Your task to perform on an android device: manage bookmarks in the chrome app Image 0: 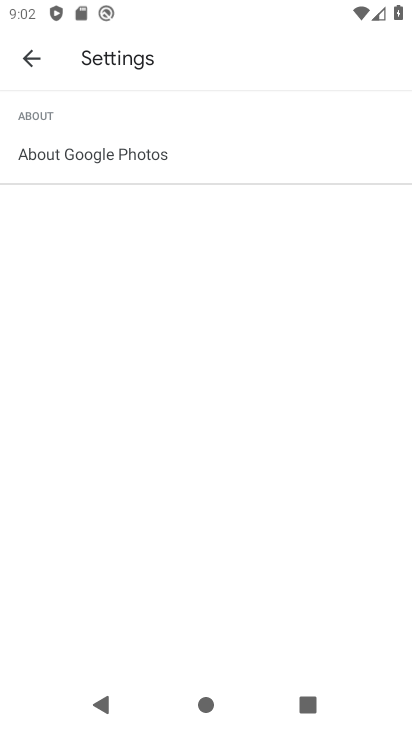
Step 0: press home button
Your task to perform on an android device: manage bookmarks in the chrome app Image 1: 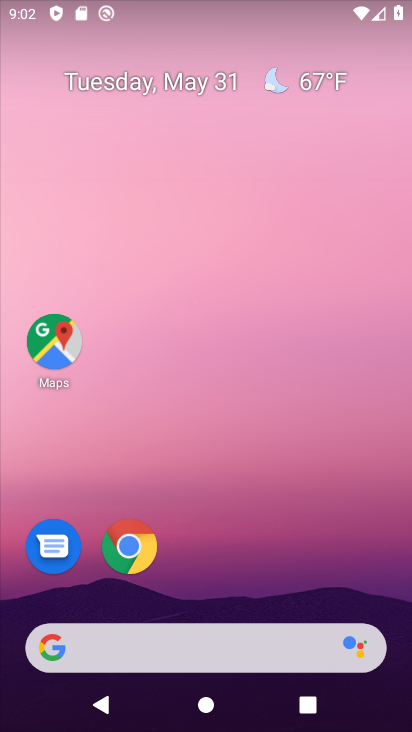
Step 1: click (132, 556)
Your task to perform on an android device: manage bookmarks in the chrome app Image 2: 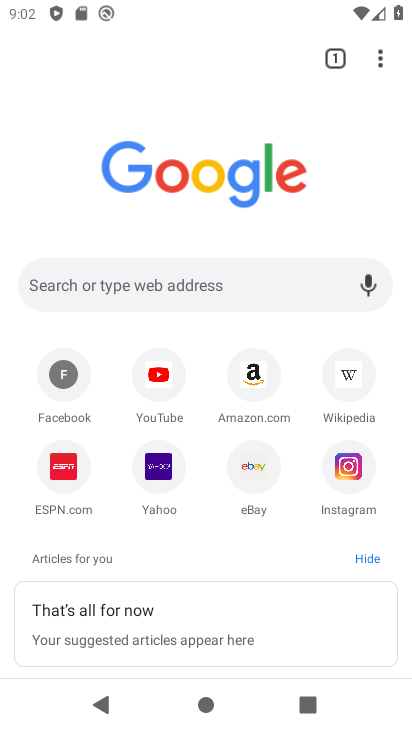
Step 2: click (382, 57)
Your task to perform on an android device: manage bookmarks in the chrome app Image 3: 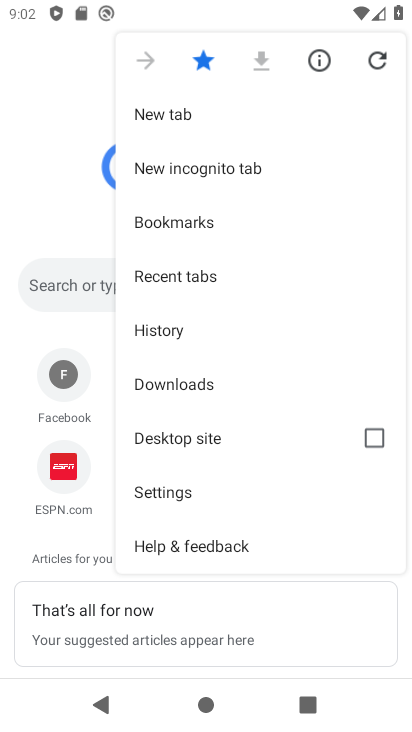
Step 3: click (187, 230)
Your task to perform on an android device: manage bookmarks in the chrome app Image 4: 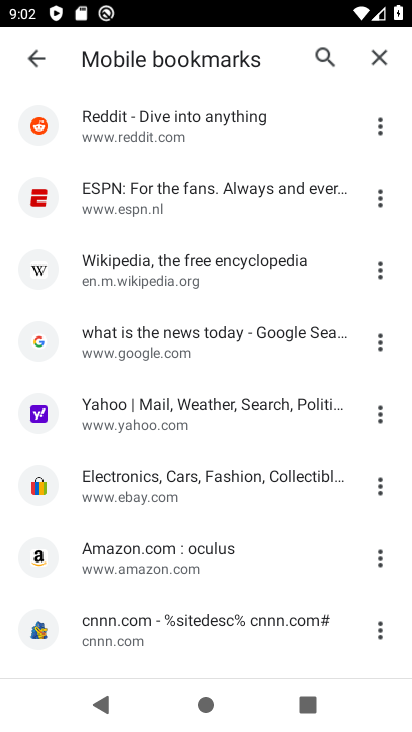
Step 4: click (368, 132)
Your task to perform on an android device: manage bookmarks in the chrome app Image 5: 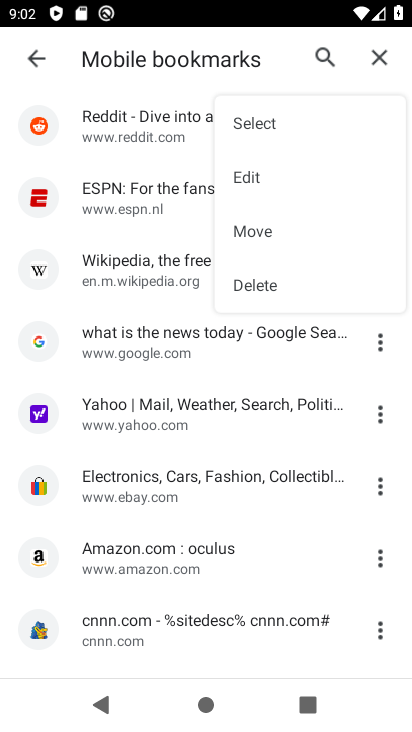
Step 5: click (265, 124)
Your task to perform on an android device: manage bookmarks in the chrome app Image 6: 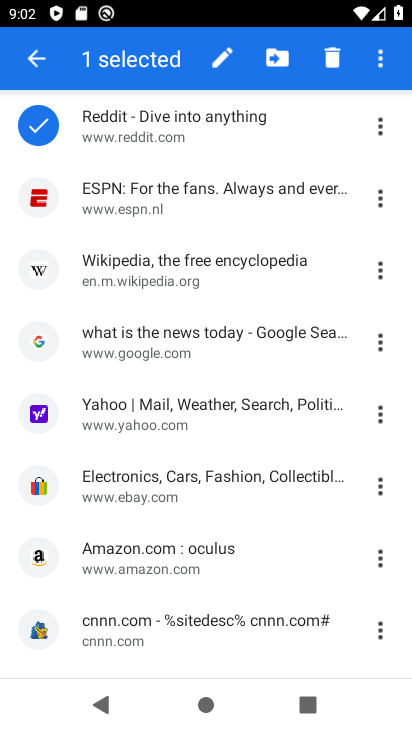
Step 6: click (289, 196)
Your task to perform on an android device: manage bookmarks in the chrome app Image 7: 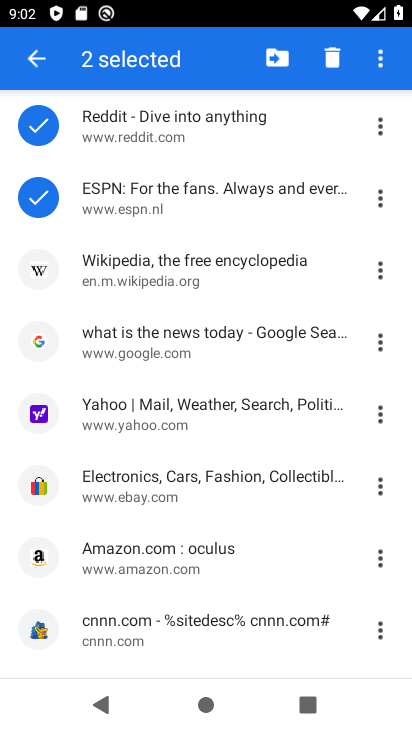
Step 7: click (206, 279)
Your task to perform on an android device: manage bookmarks in the chrome app Image 8: 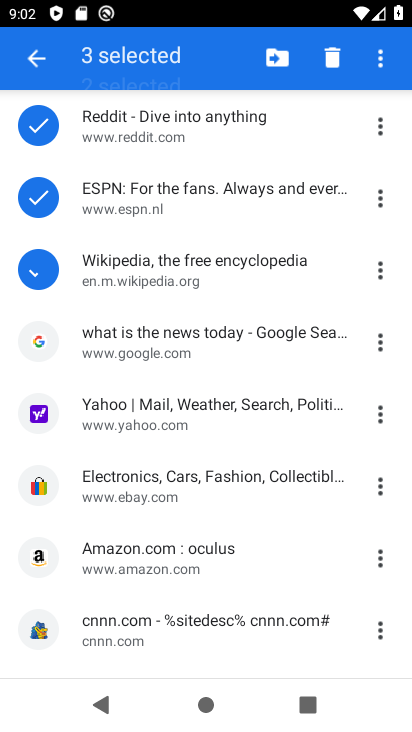
Step 8: click (186, 373)
Your task to perform on an android device: manage bookmarks in the chrome app Image 9: 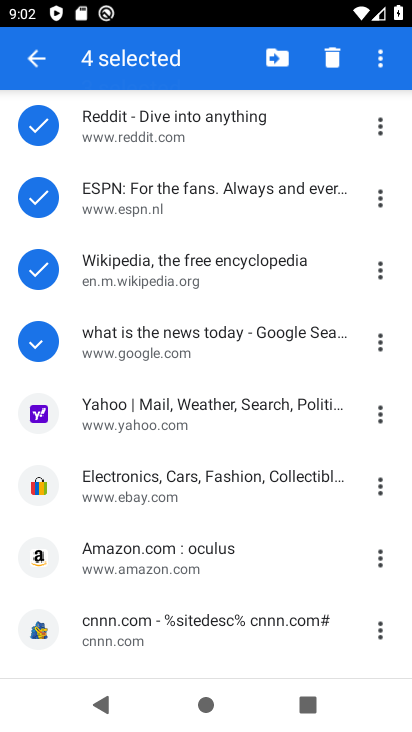
Step 9: click (162, 439)
Your task to perform on an android device: manage bookmarks in the chrome app Image 10: 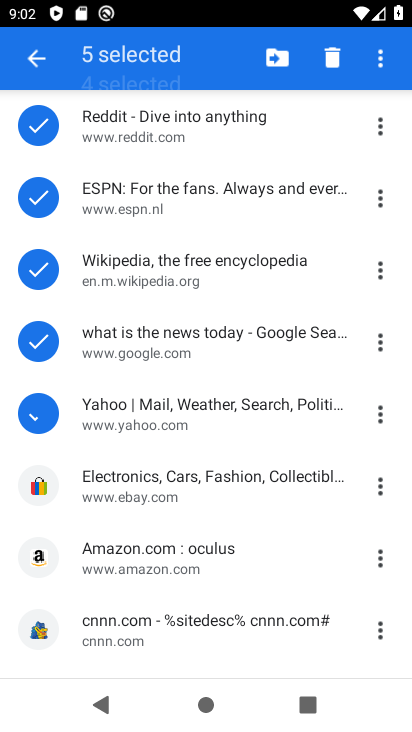
Step 10: click (148, 489)
Your task to perform on an android device: manage bookmarks in the chrome app Image 11: 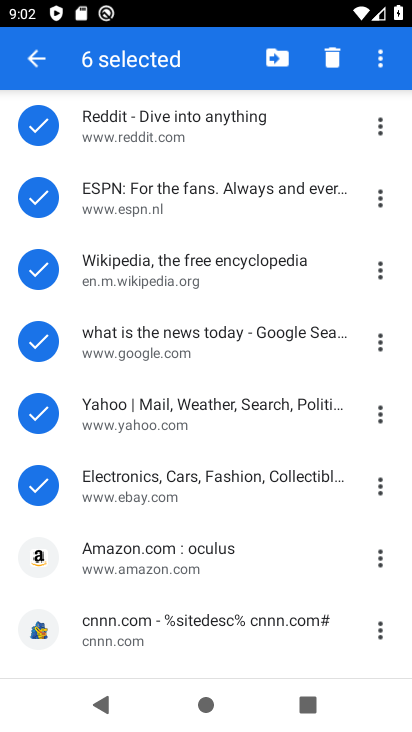
Step 11: click (119, 589)
Your task to perform on an android device: manage bookmarks in the chrome app Image 12: 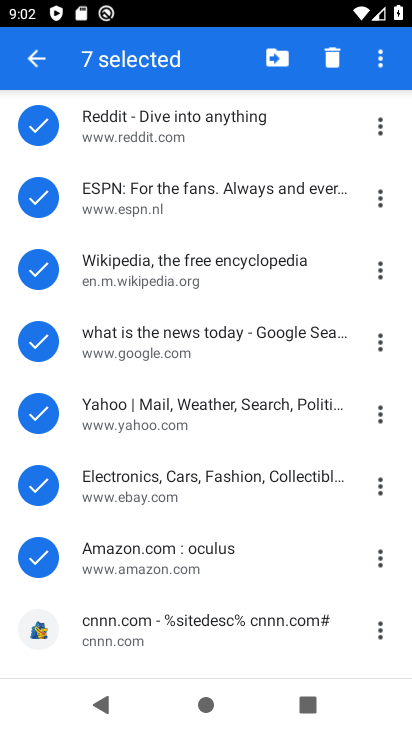
Step 12: drag from (107, 585) to (168, 90)
Your task to perform on an android device: manage bookmarks in the chrome app Image 13: 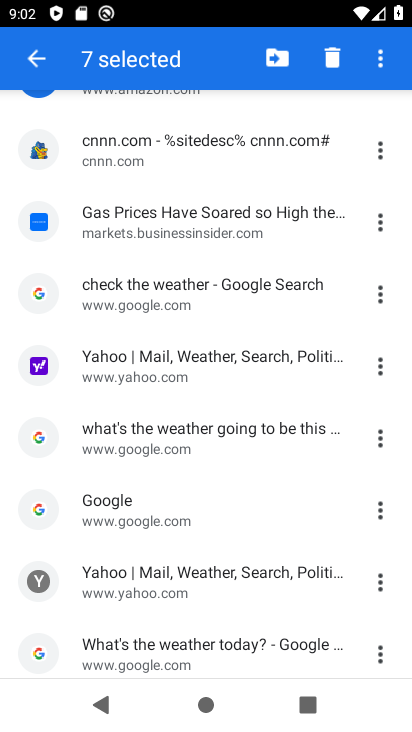
Step 13: click (147, 229)
Your task to perform on an android device: manage bookmarks in the chrome app Image 14: 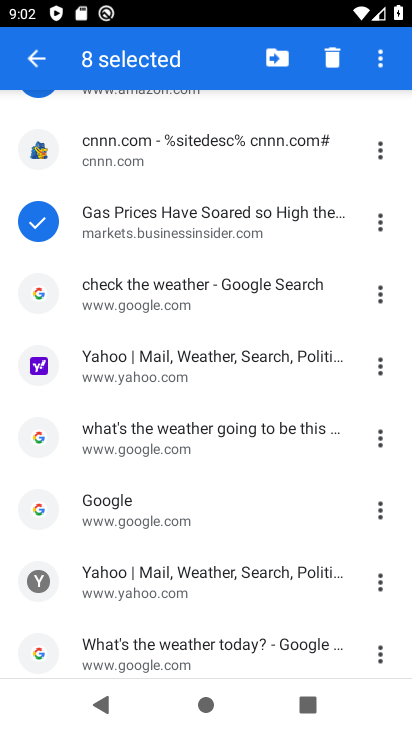
Step 14: click (133, 304)
Your task to perform on an android device: manage bookmarks in the chrome app Image 15: 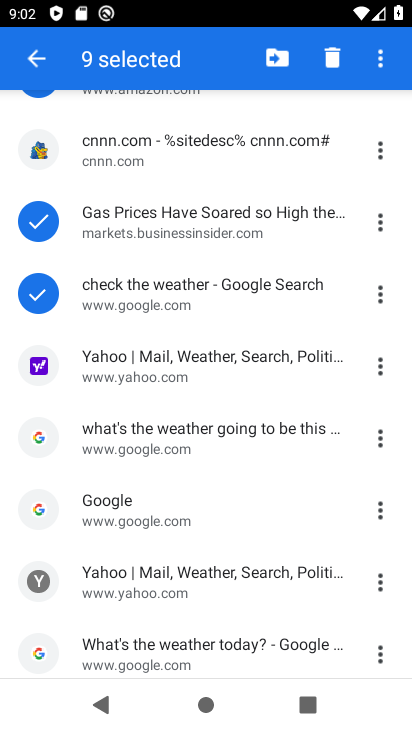
Step 15: click (132, 395)
Your task to perform on an android device: manage bookmarks in the chrome app Image 16: 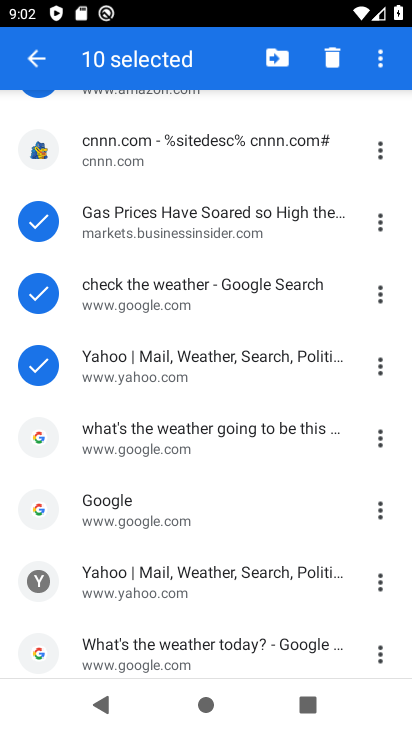
Step 16: click (140, 463)
Your task to perform on an android device: manage bookmarks in the chrome app Image 17: 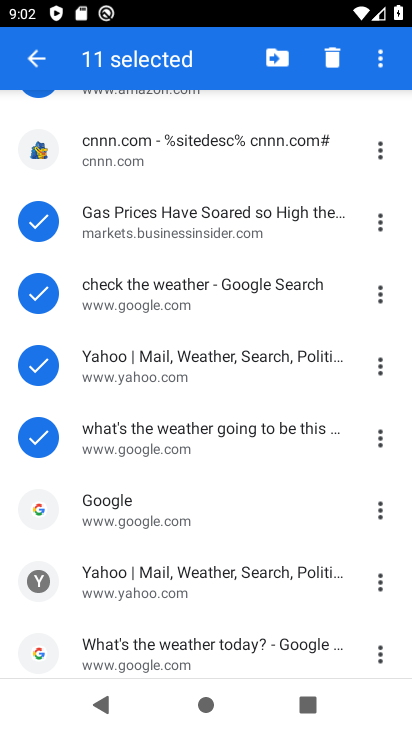
Step 17: click (146, 590)
Your task to perform on an android device: manage bookmarks in the chrome app Image 18: 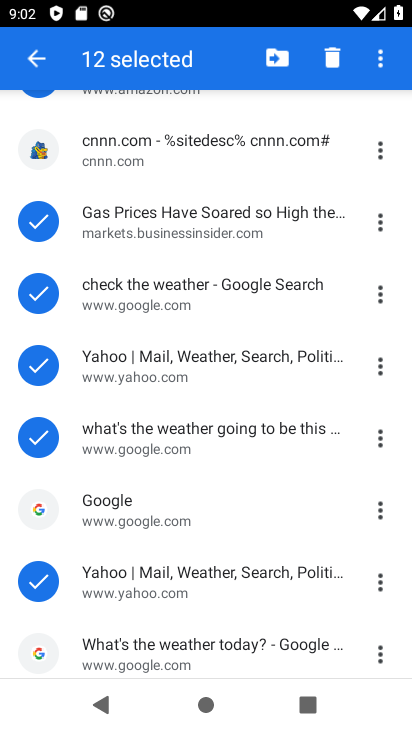
Step 18: click (274, 57)
Your task to perform on an android device: manage bookmarks in the chrome app Image 19: 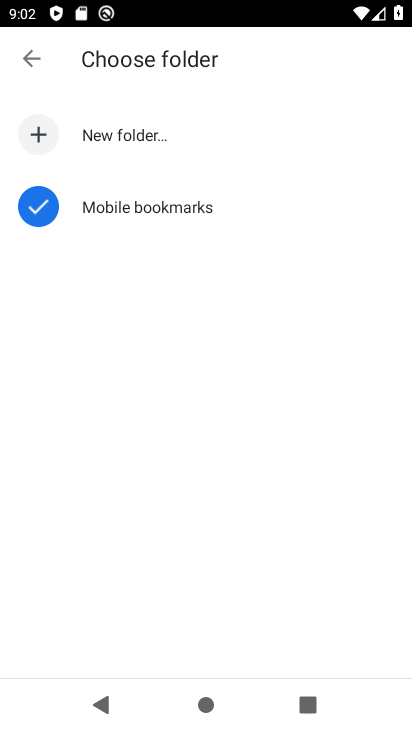
Step 19: click (142, 140)
Your task to perform on an android device: manage bookmarks in the chrome app Image 20: 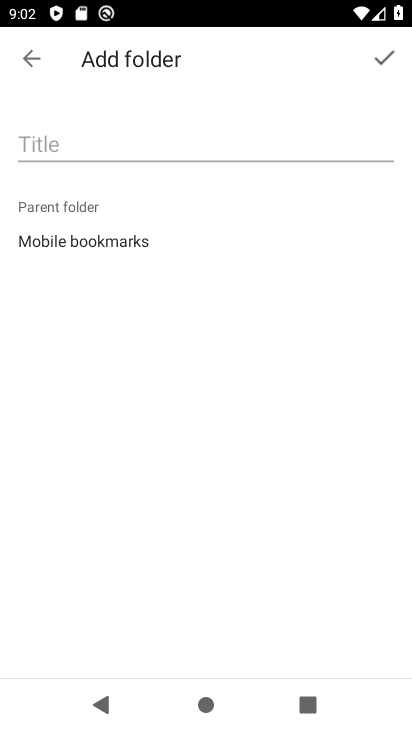
Step 20: click (148, 145)
Your task to perform on an android device: manage bookmarks in the chrome app Image 21: 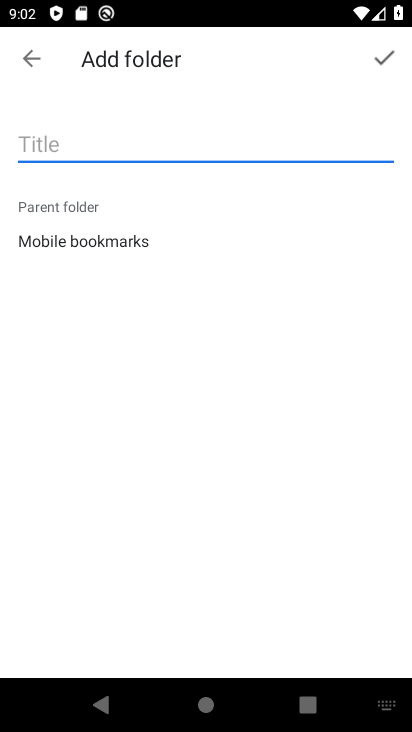
Step 21: type "bookk"
Your task to perform on an android device: manage bookmarks in the chrome app Image 22: 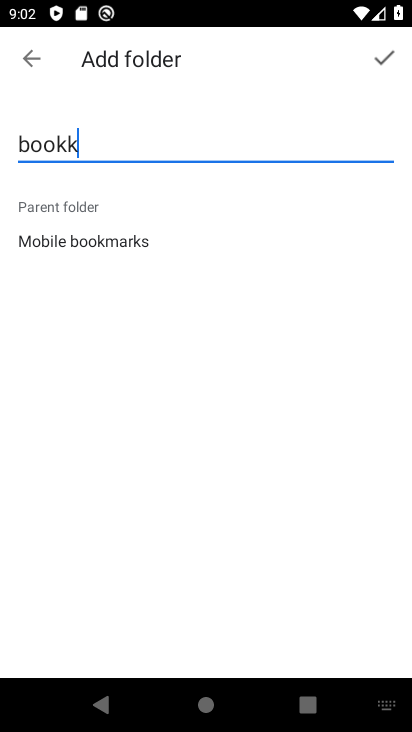
Step 22: click (393, 48)
Your task to perform on an android device: manage bookmarks in the chrome app Image 23: 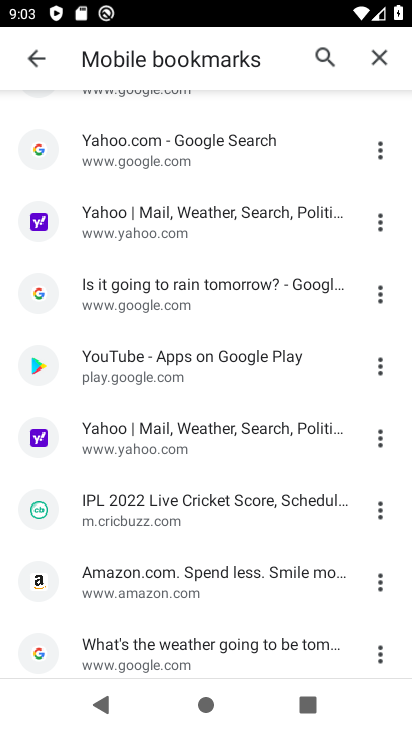
Step 23: task complete